Your task to perform on an android device: Open the phone app and click the voicemail tab. Image 0: 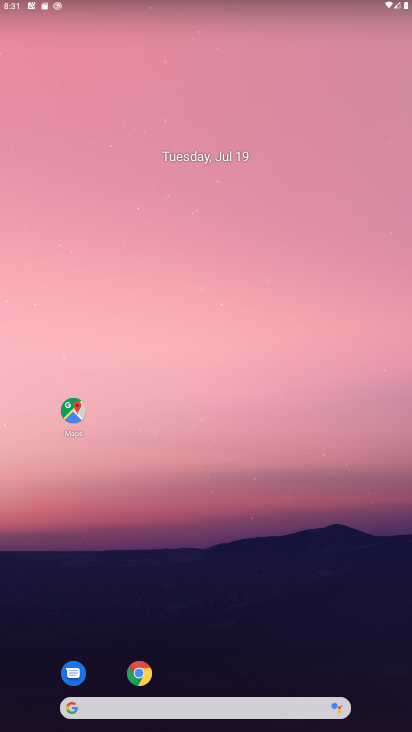
Step 0: drag from (375, 666) to (325, 128)
Your task to perform on an android device: Open the phone app and click the voicemail tab. Image 1: 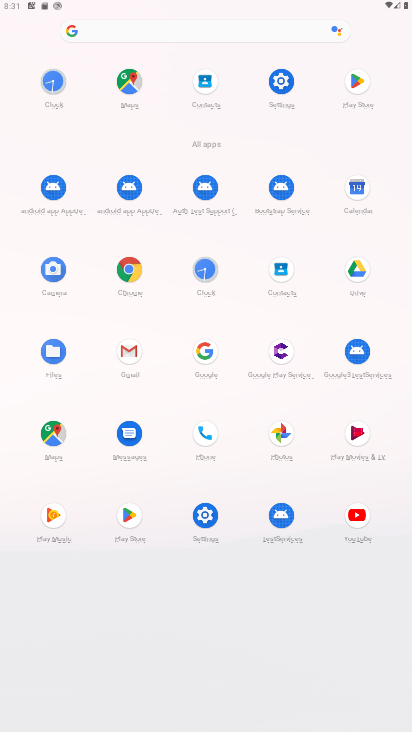
Step 1: click (202, 433)
Your task to perform on an android device: Open the phone app and click the voicemail tab. Image 2: 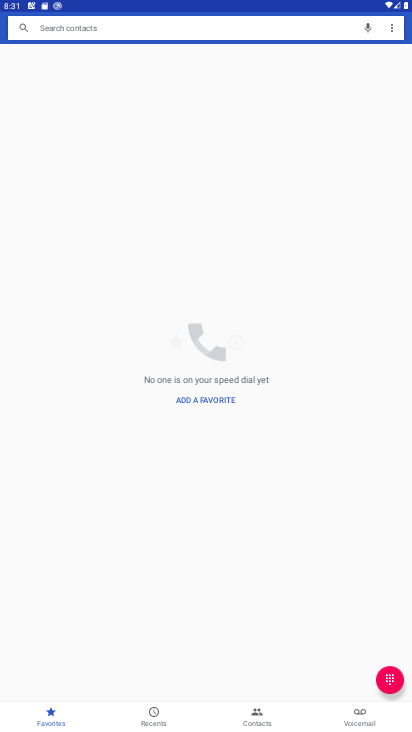
Step 2: click (359, 719)
Your task to perform on an android device: Open the phone app and click the voicemail tab. Image 3: 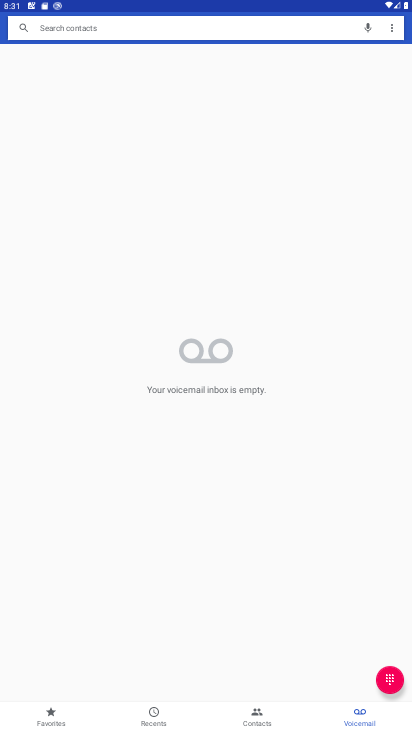
Step 3: task complete